Your task to perform on an android device: turn off picture-in-picture Image 0: 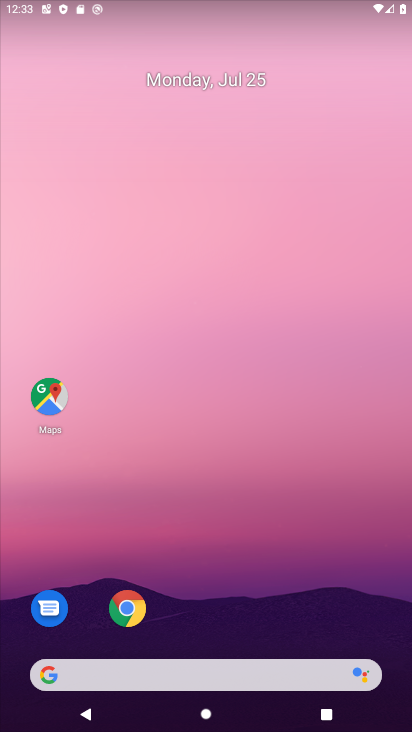
Step 0: drag from (283, 583) to (275, 95)
Your task to perform on an android device: turn off picture-in-picture Image 1: 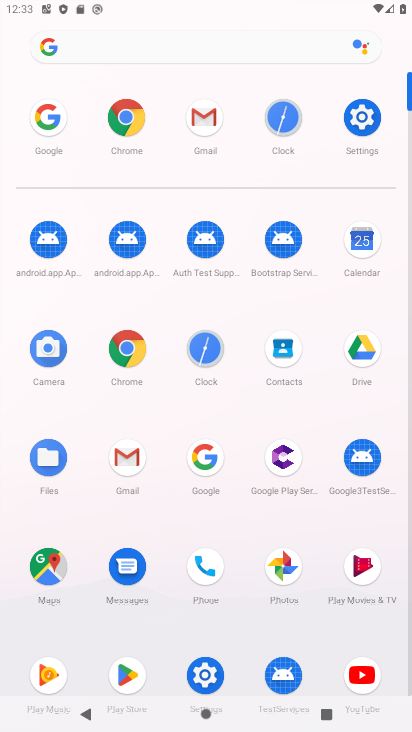
Step 1: click (369, 128)
Your task to perform on an android device: turn off picture-in-picture Image 2: 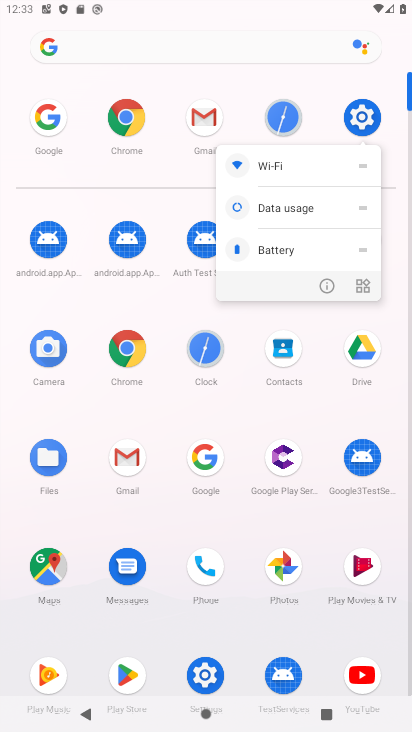
Step 2: click (369, 128)
Your task to perform on an android device: turn off picture-in-picture Image 3: 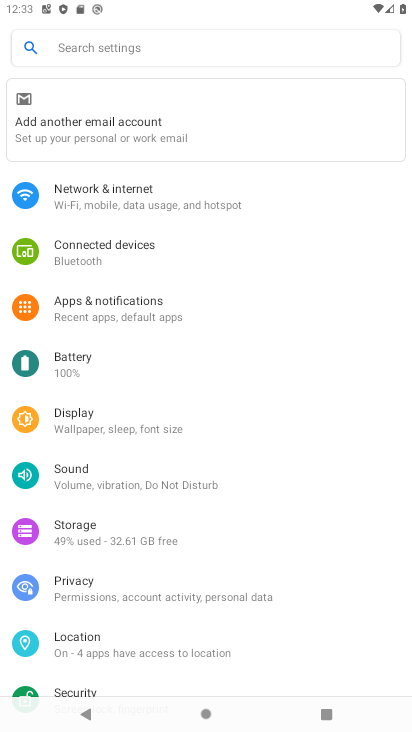
Step 3: drag from (254, 517) to (257, 265)
Your task to perform on an android device: turn off picture-in-picture Image 4: 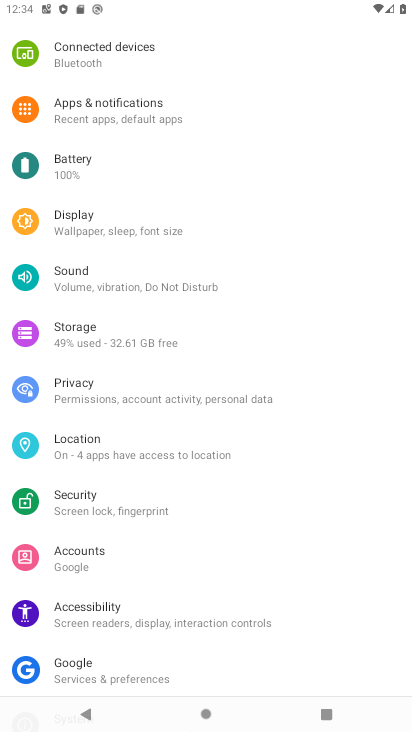
Step 4: drag from (207, 512) to (233, 224)
Your task to perform on an android device: turn off picture-in-picture Image 5: 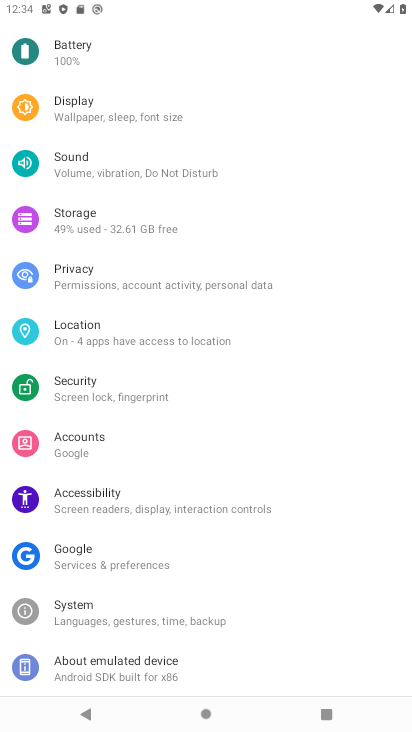
Step 5: drag from (241, 200) to (281, 416)
Your task to perform on an android device: turn off picture-in-picture Image 6: 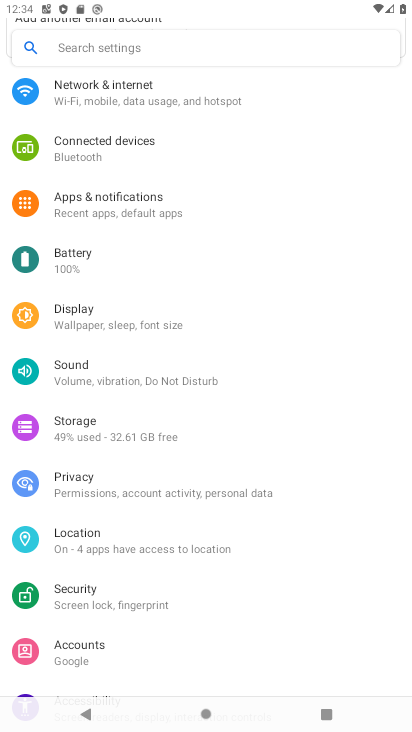
Step 6: drag from (246, 256) to (271, 420)
Your task to perform on an android device: turn off picture-in-picture Image 7: 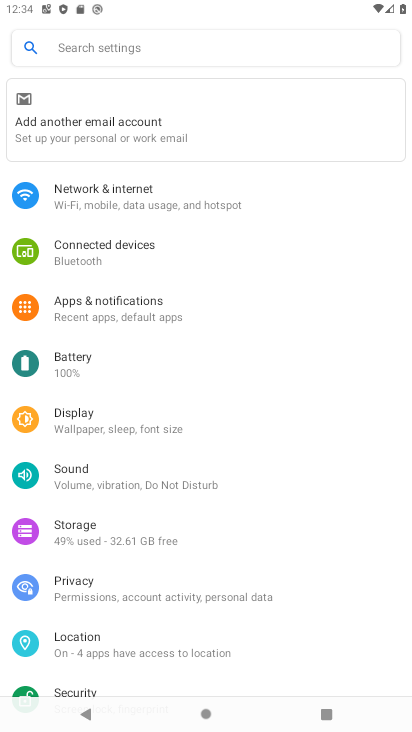
Step 7: drag from (240, 259) to (262, 415)
Your task to perform on an android device: turn off picture-in-picture Image 8: 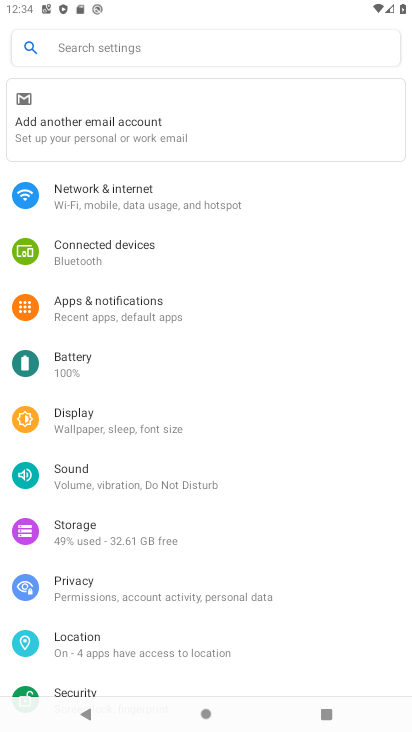
Step 8: click (163, 318)
Your task to perform on an android device: turn off picture-in-picture Image 9: 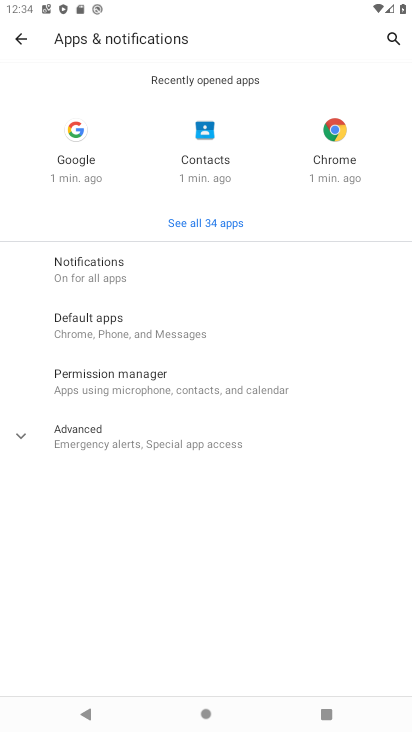
Step 9: click (149, 451)
Your task to perform on an android device: turn off picture-in-picture Image 10: 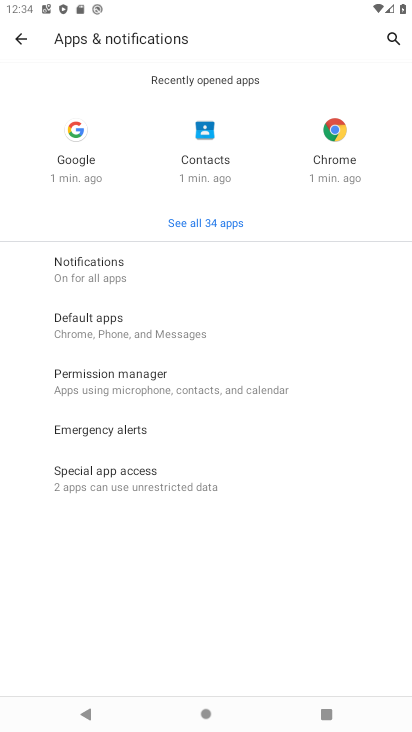
Step 10: click (153, 484)
Your task to perform on an android device: turn off picture-in-picture Image 11: 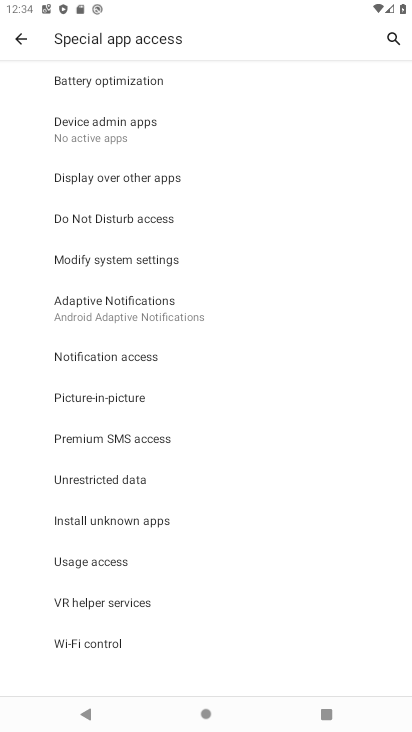
Step 11: drag from (222, 492) to (196, 167)
Your task to perform on an android device: turn off picture-in-picture Image 12: 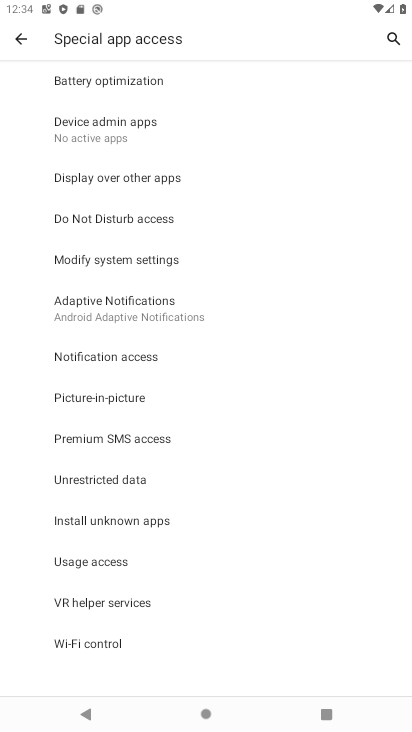
Step 12: drag from (194, 160) to (274, 516)
Your task to perform on an android device: turn off picture-in-picture Image 13: 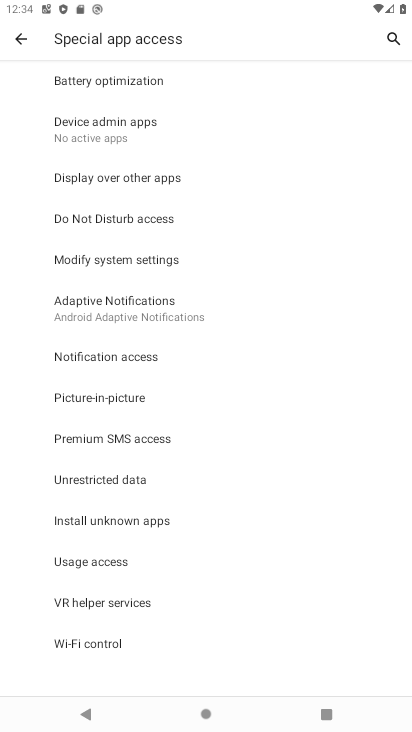
Step 13: click (106, 403)
Your task to perform on an android device: turn off picture-in-picture Image 14: 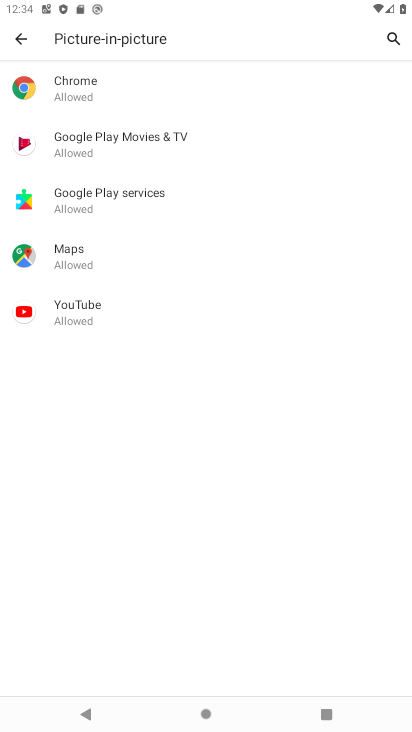
Step 14: click (159, 113)
Your task to perform on an android device: turn off picture-in-picture Image 15: 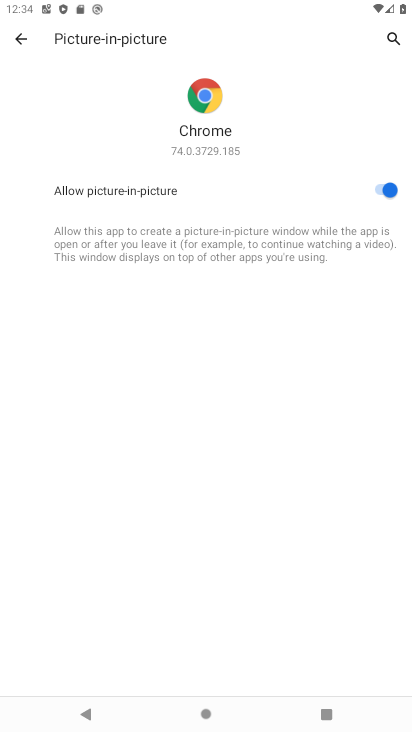
Step 15: click (388, 191)
Your task to perform on an android device: turn off picture-in-picture Image 16: 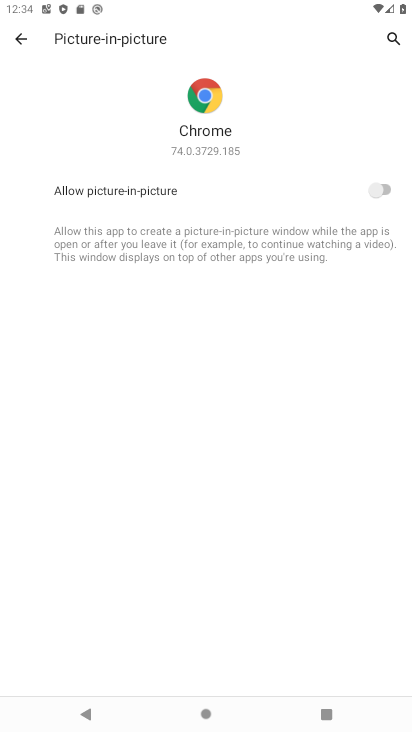
Step 16: task complete